Your task to perform on an android device: change keyboard looks Image 0: 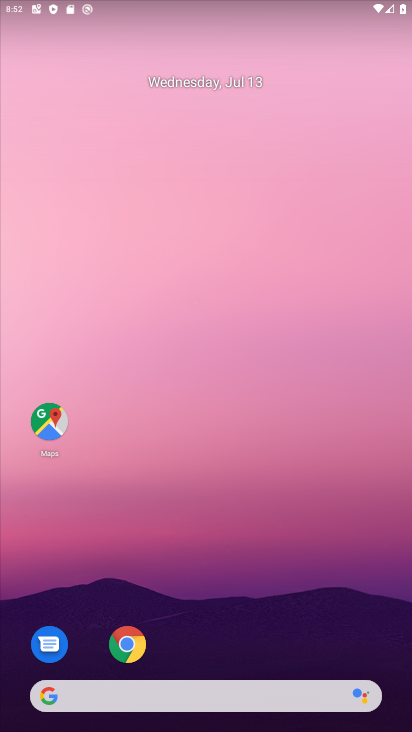
Step 0: drag from (241, 726) to (202, 148)
Your task to perform on an android device: change keyboard looks Image 1: 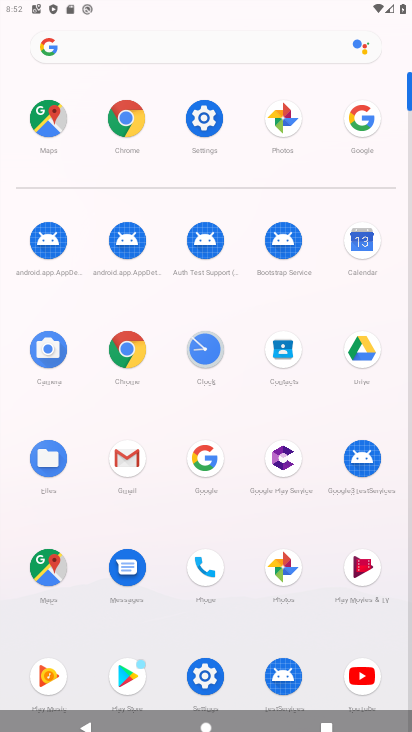
Step 1: click (207, 116)
Your task to perform on an android device: change keyboard looks Image 2: 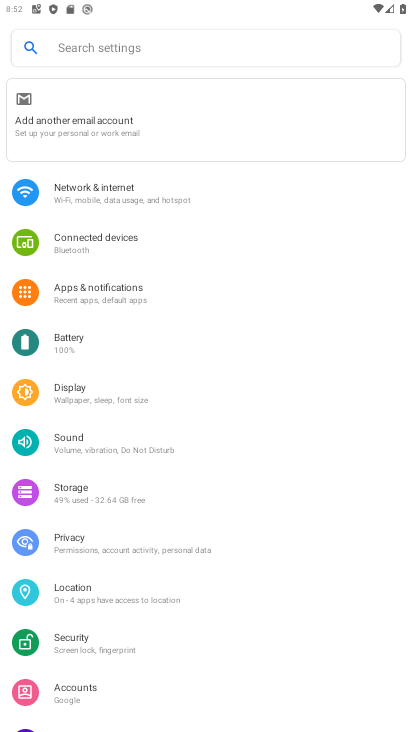
Step 2: drag from (140, 686) to (136, 321)
Your task to perform on an android device: change keyboard looks Image 3: 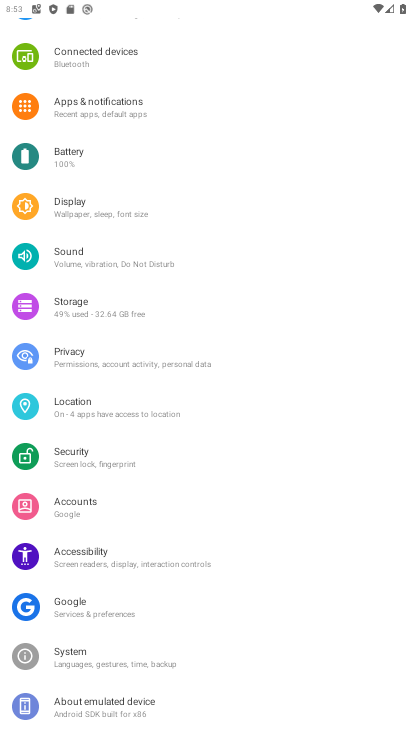
Step 3: click (96, 663)
Your task to perform on an android device: change keyboard looks Image 4: 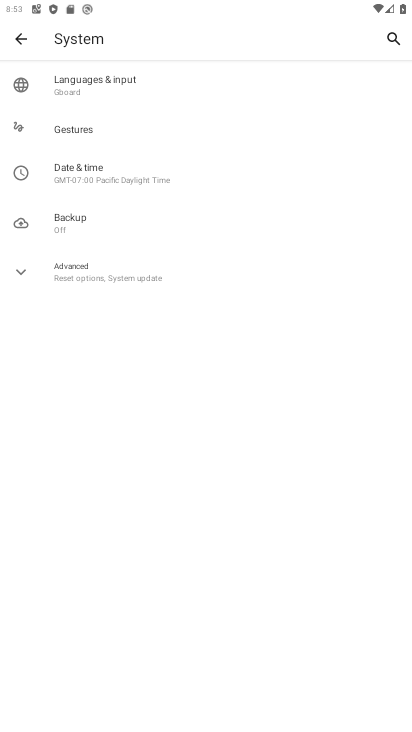
Step 4: click (85, 76)
Your task to perform on an android device: change keyboard looks Image 5: 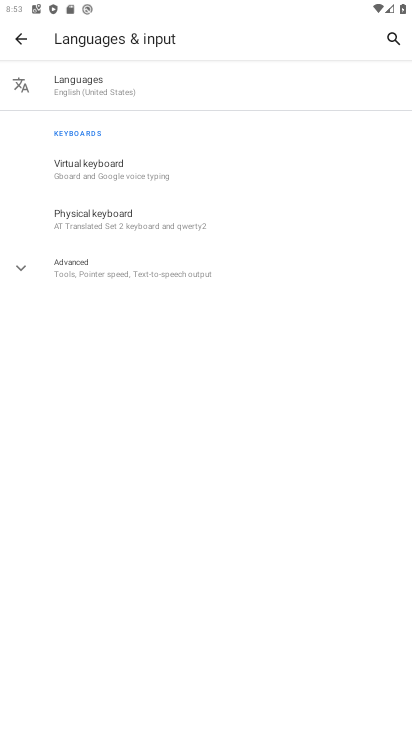
Step 5: click (114, 162)
Your task to perform on an android device: change keyboard looks Image 6: 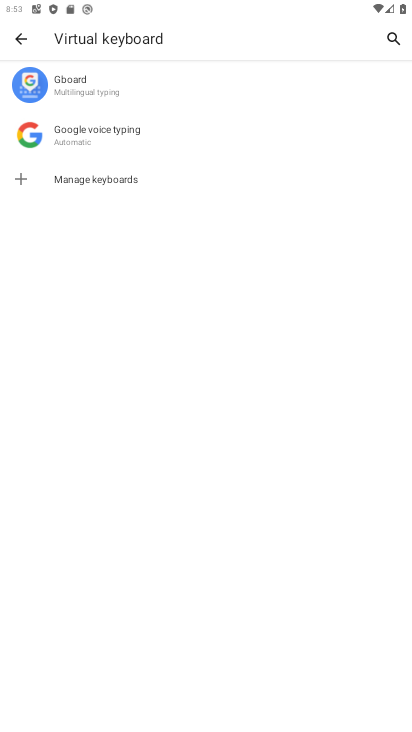
Step 6: click (76, 85)
Your task to perform on an android device: change keyboard looks Image 7: 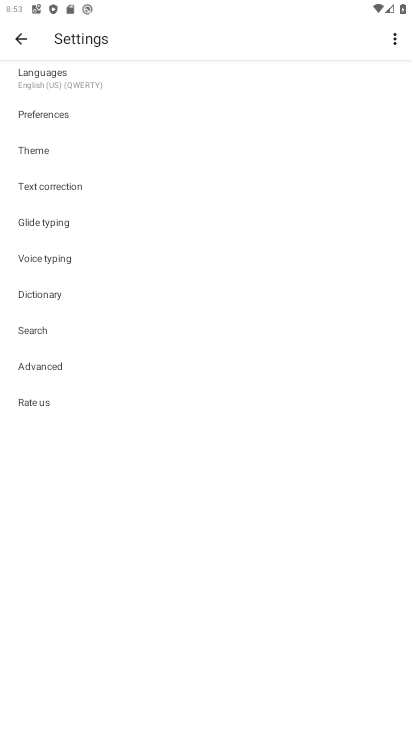
Step 7: click (39, 150)
Your task to perform on an android device: change keyboard looks Image 8: 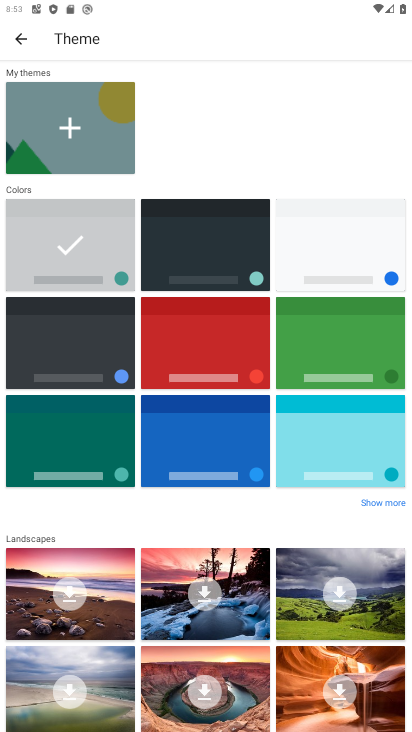
Step 8: click (198, 235)
Your task to perform on an android device: change keyboard looks Image 9: 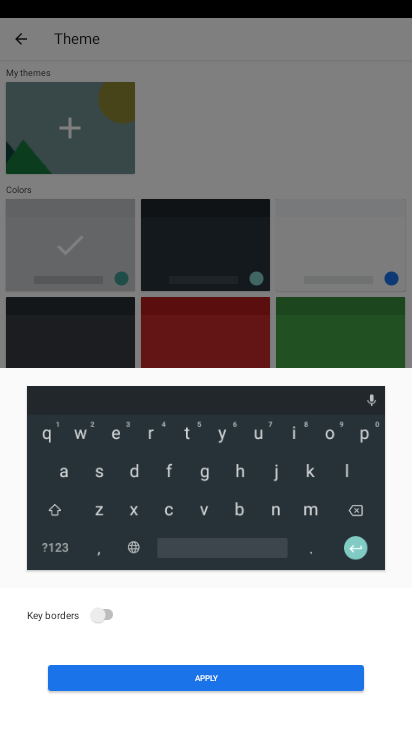
Step 9: click (110, 612)
Your task to perform on an android device: change keyboard looks Image 10: 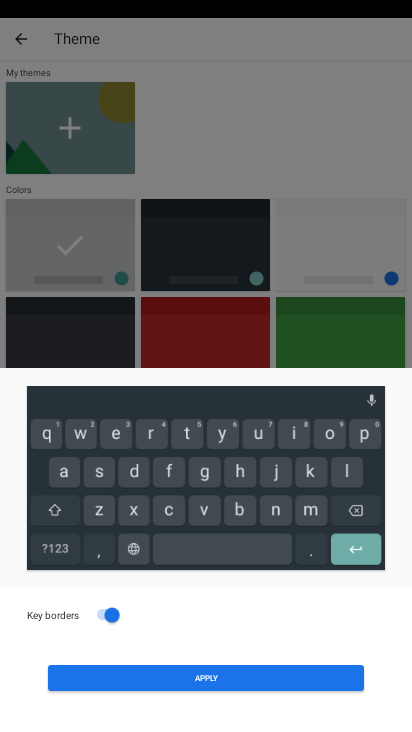
Step 10: click (196, 683)
Your task to perform on an android device: change keyboard looks Image 11: 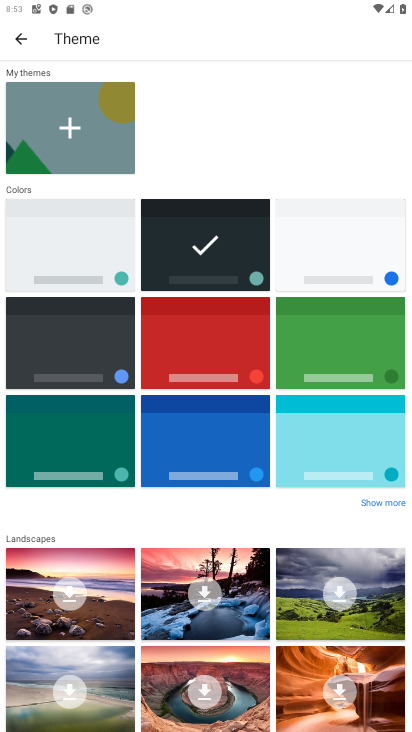
Step 11: task complete